Your task to perform on an android device: Search for "razer blade" on walmart, select the first entry, and add it to the cart. Image 0: 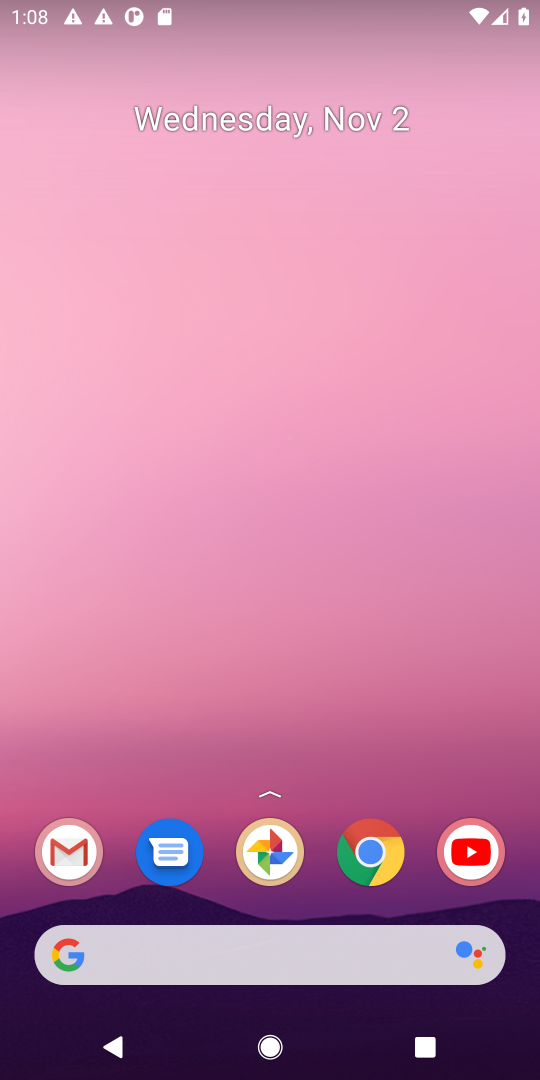
Step 0: click (58, 939)
Your task to perform on an android device: Search for "razer blade" on walmart, select the first entry, and add it to the cart. Image 1: 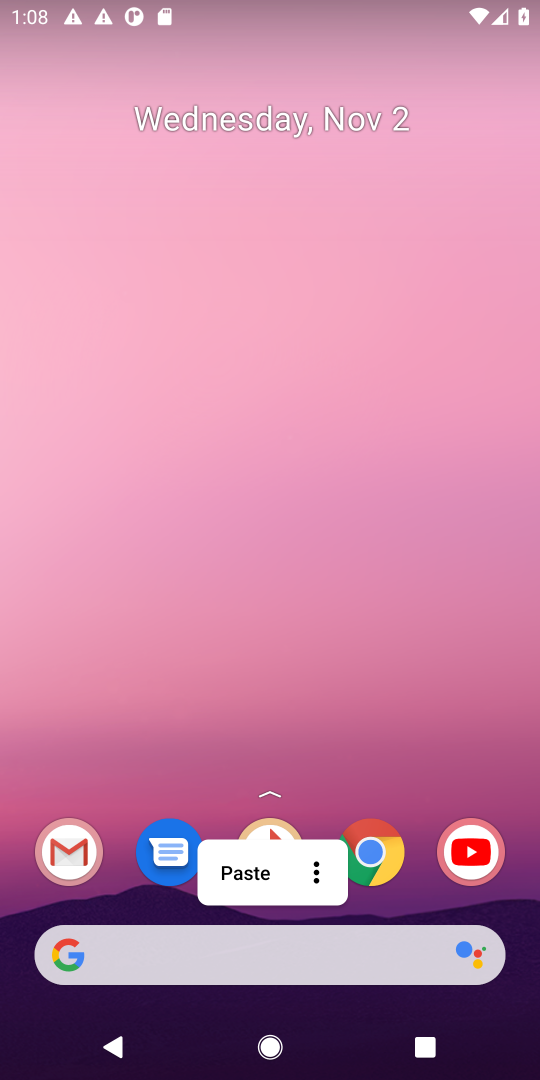
Step 1: click (63, 948)
Your task to perform on an android device: Search for "razer blade" on walmart, select the first entry, and add it to the cart. Image 2: 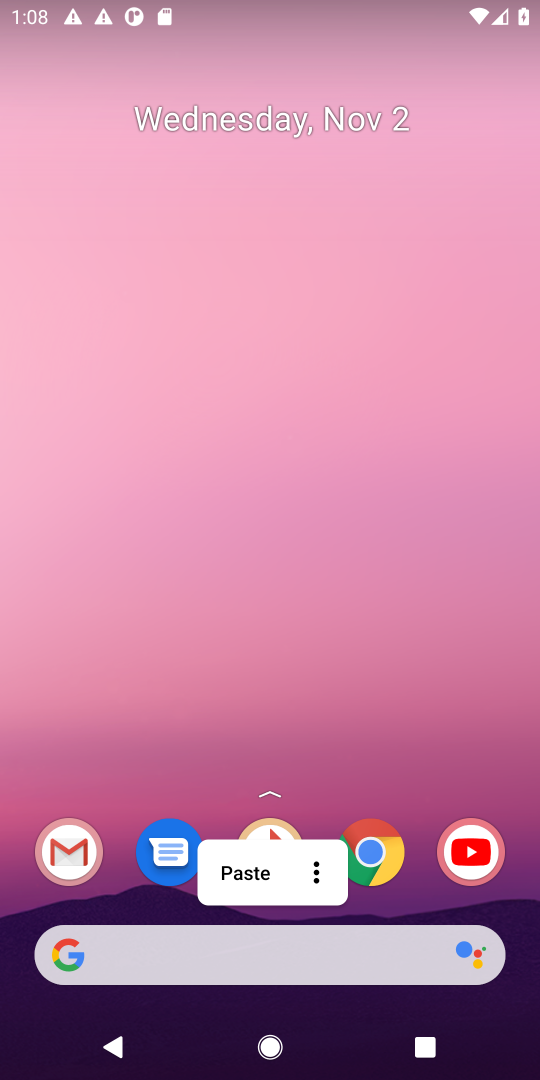
Step 2: click (48, 956)
Your task to perform on an android device: Search for "razer blade" on walmart, select the first entry, and add it to the cart. Image 3: 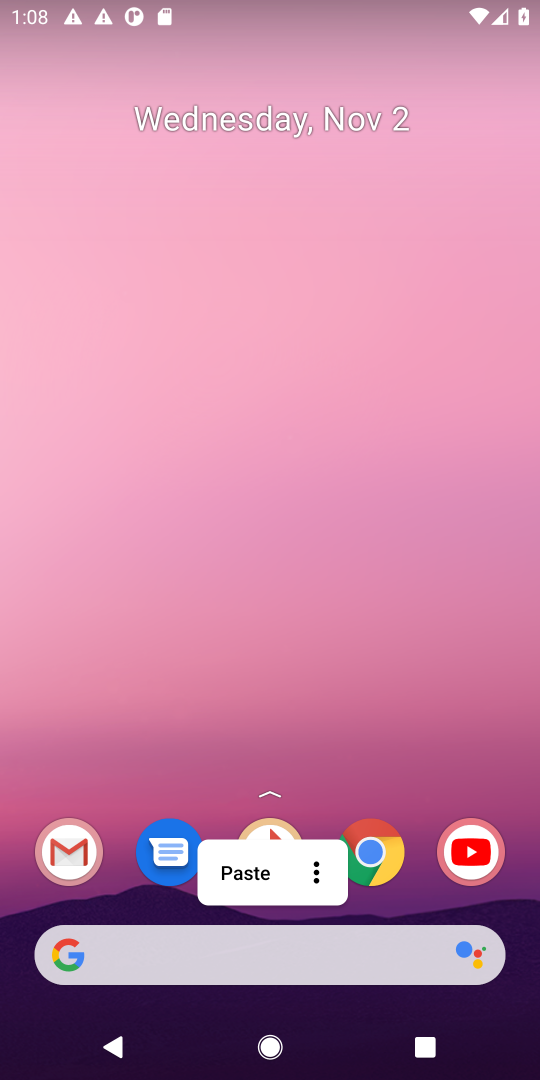
Step 3: click (31, 942)
Your task to perform on an android device: Search for "razer blade" on walmart, select the first entry, and add it to the cart. Image 4: 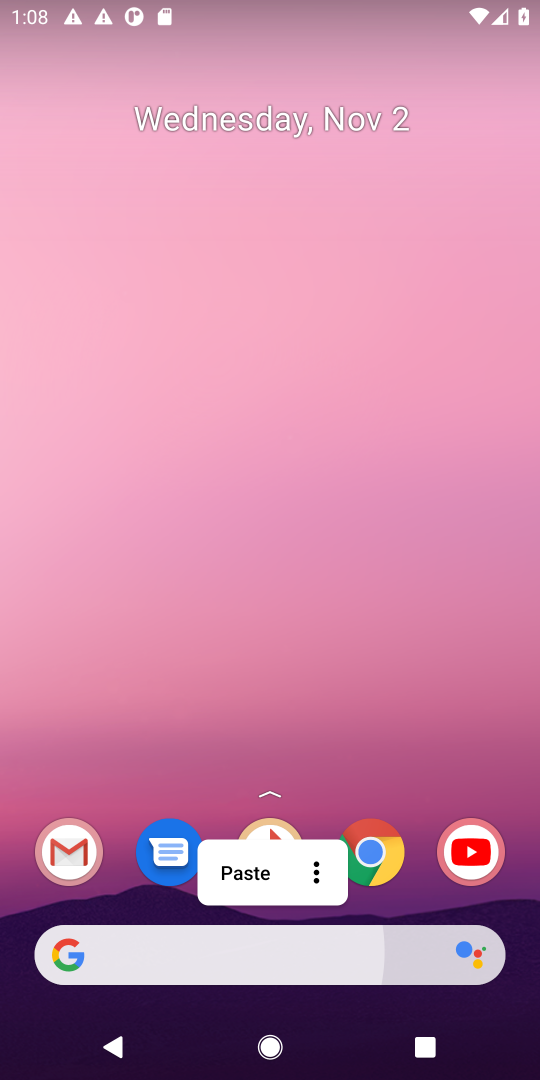
Step 4: click (51, 951)
Your task to perform on an android device: Search for "razer blade" on walmart, select the first entry, and add it to the cart. Image 5: 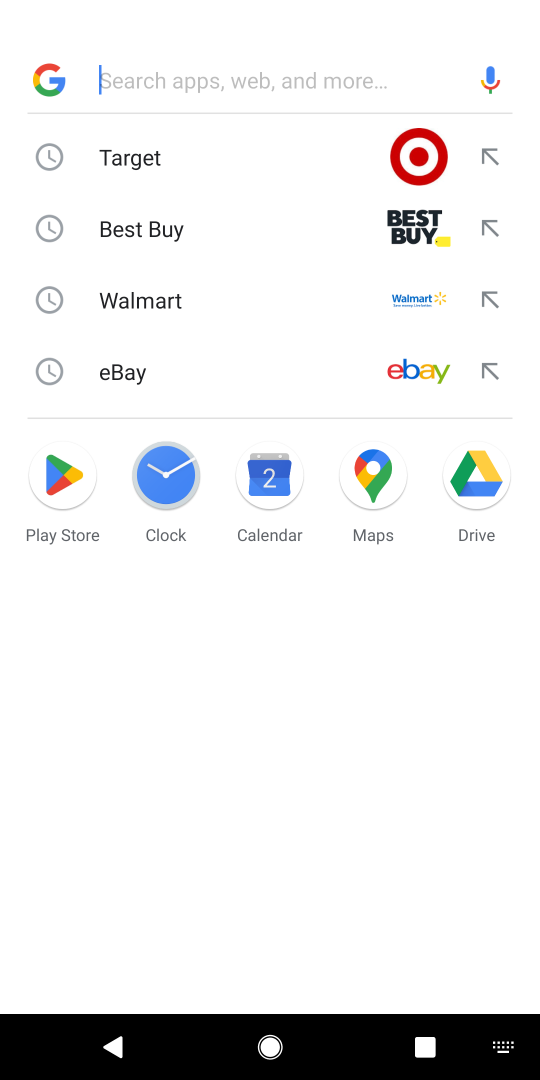
Step 5: click (157, 305)
Your task to perform on an android device: Search for "razer blade" on walmart, select the first entry, and add it to the cart. Image 6: 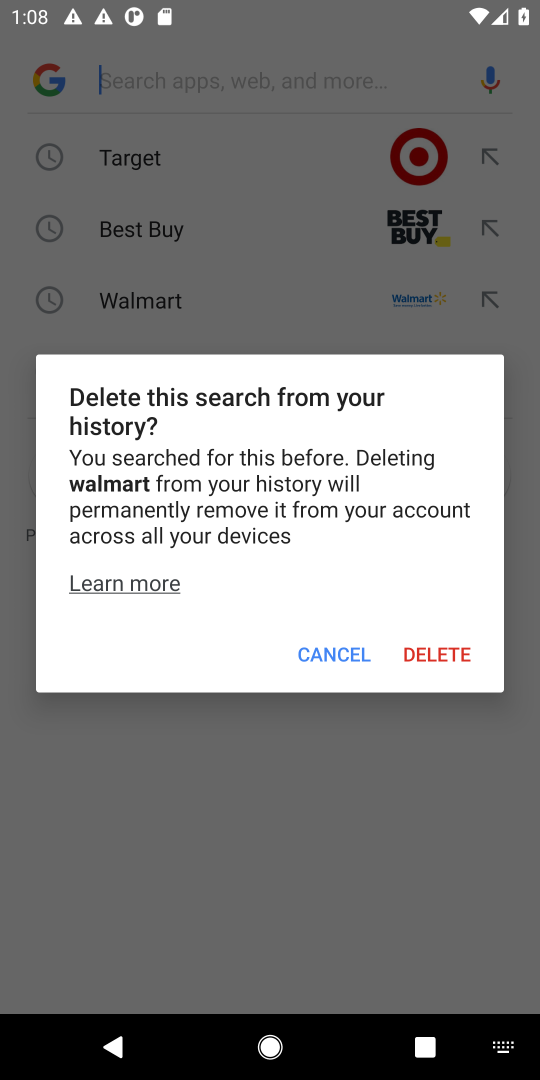
Step 6: click (325, 651)
Your task to perform on an android device: Search for "razer blade" on walmart, select the first entry, and add it to the cart. Image 7: 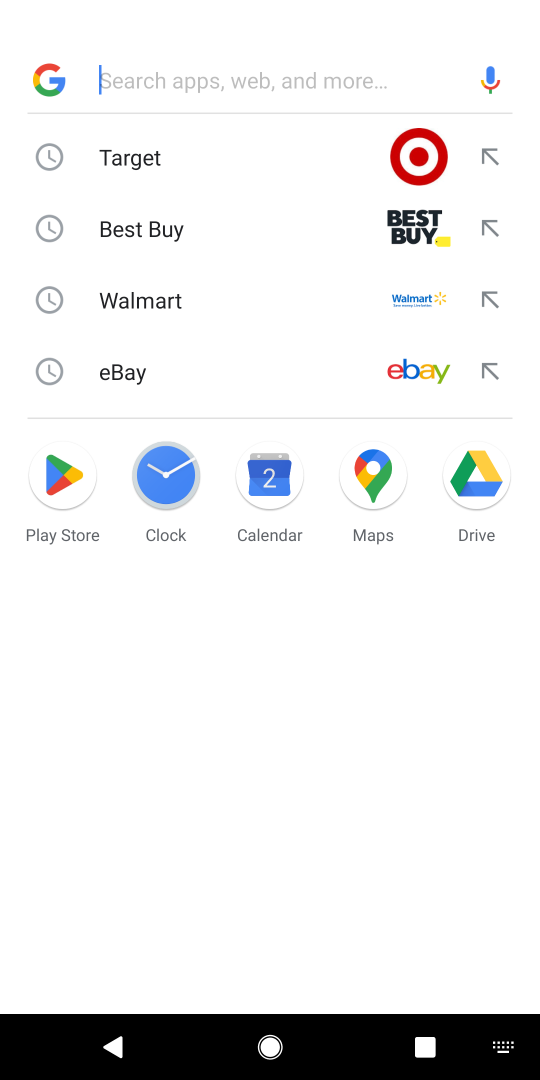
Step 7: click (139, 303)
Your task to perform on an android device: Search for "razer blade" on walmart, select the first entry, and add it to the cart. Image 8: 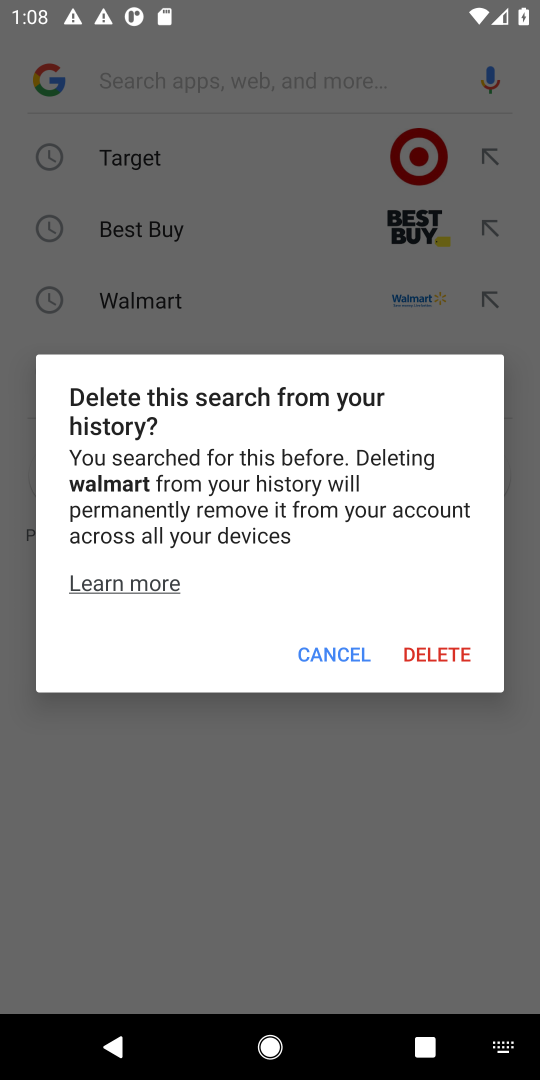
Step 8: click (343, 649)
Your task to perform on an android device: Search for "razer blade" on walmart, select the first entry, and add it to the cart. Image 9: 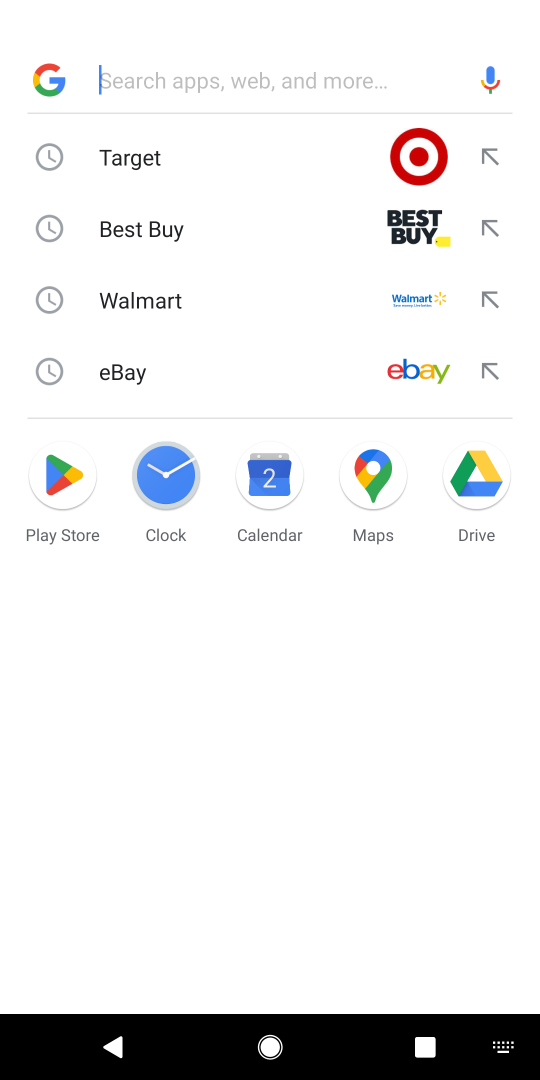
Step 9: click (138, 308)
Your task to perform on an android device: Search for "razer blade" on walmart, select the first entry, and add it to the cart. Image 10: 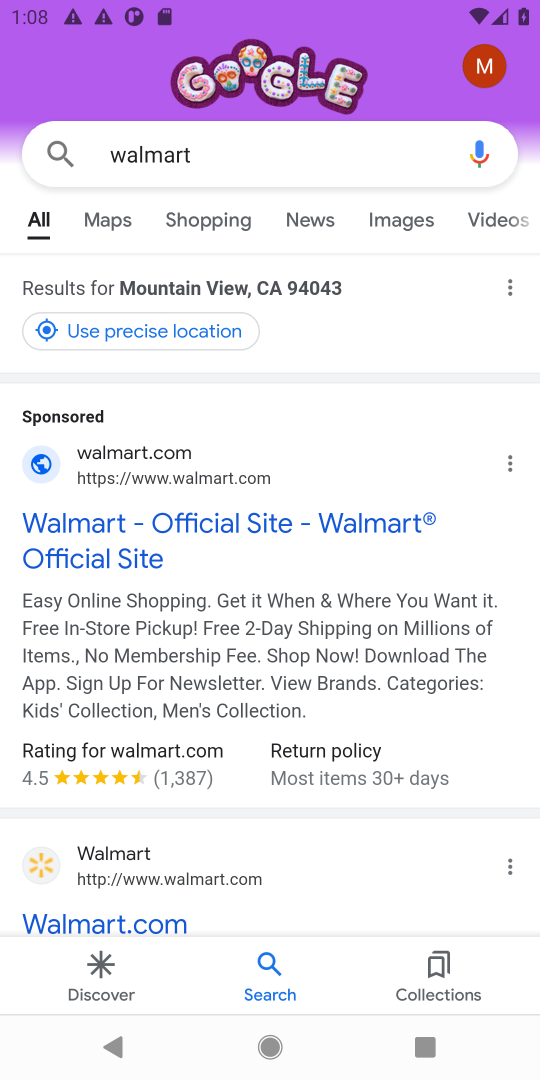
Step 10: click (123, 930)
Your task to perform on an android device: Search for "razer blade" on walmart, select the first entry, and add it to the cart. Image 11: 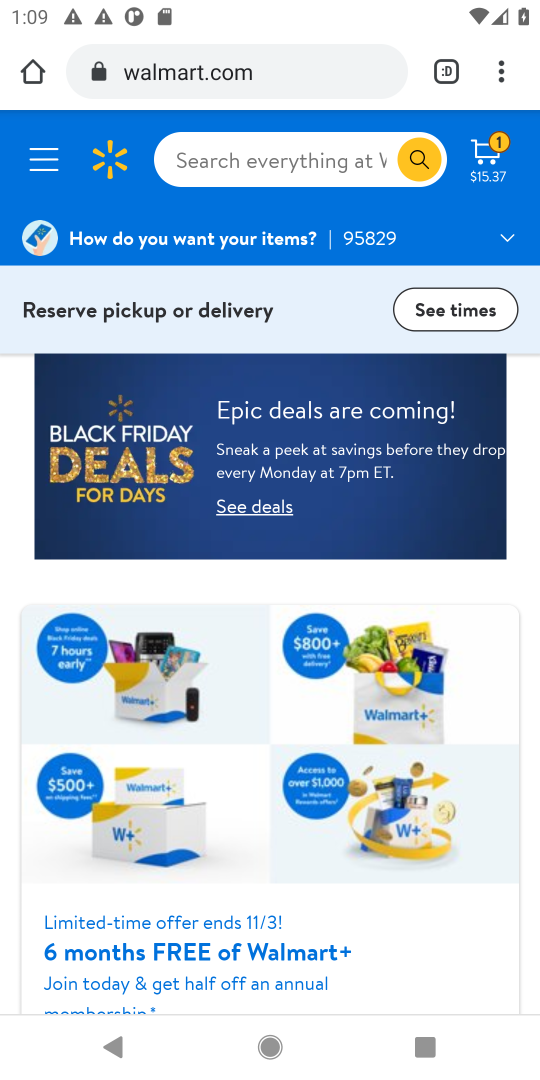
Step 11: click (260, 154)
Your task to perform on an android device: Search for "razer blade" on walmart, select the first entry, and add it to the cart. Image 12: 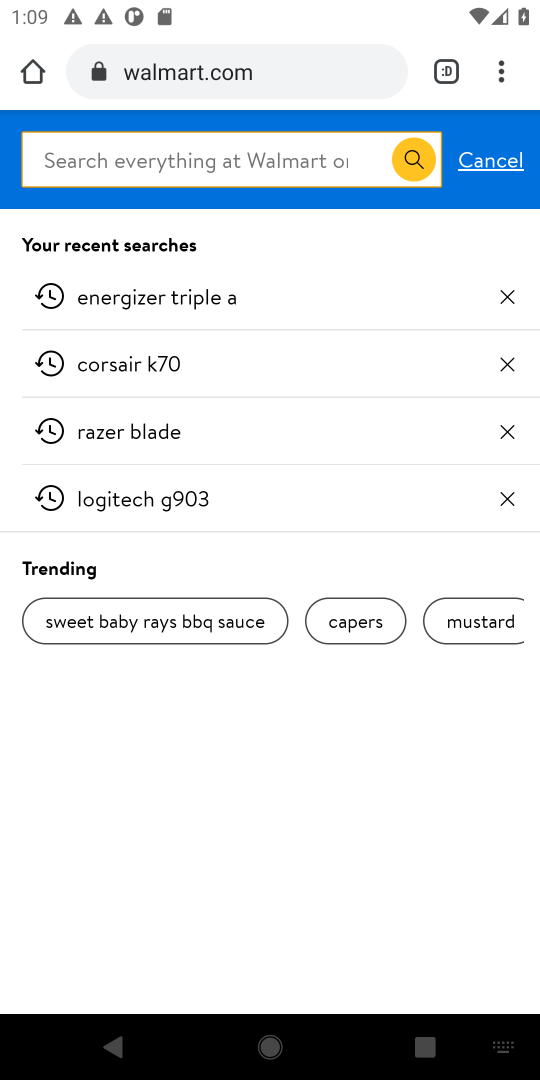
Step 12: type "razer blade"
Your task to perform on an android device: Search for "razer blade" on walmart, select the first entry, and add it to the cart. Image 13: 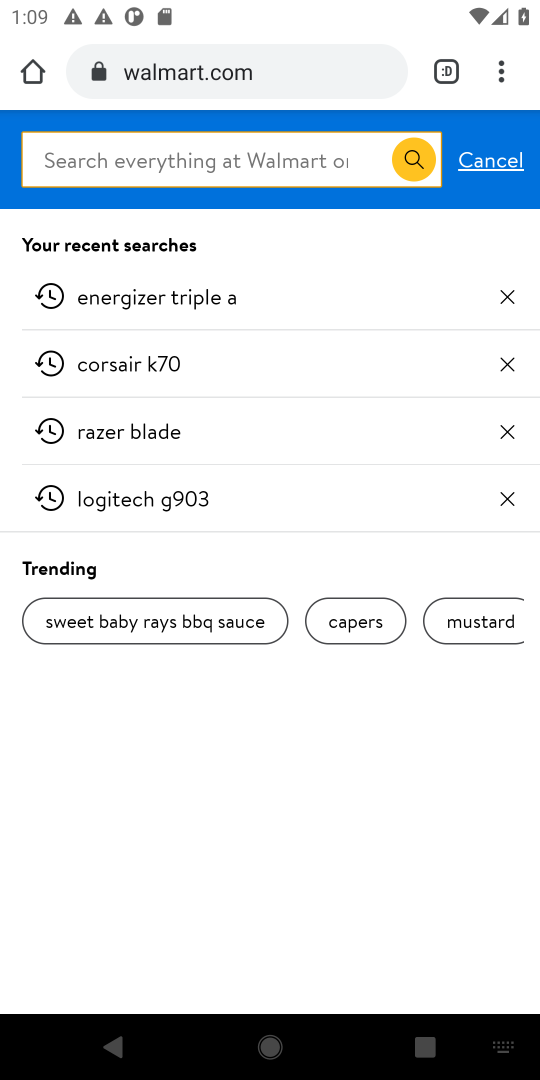
Step 13: click (187, 158)
Your task to perform on an android device: Search for "razer blade" on walmart, select the first entry, and add it to the cart. Image 14: 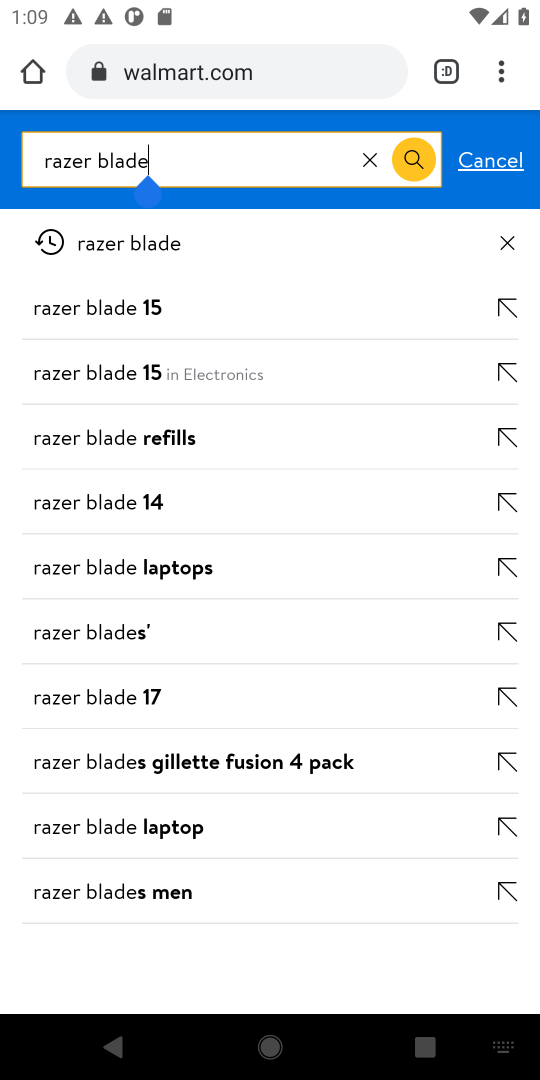
Step 14: press enter
Your task to perform on an android device: Search for "razer blade" on walmart, select the first entry, and add it to the cart. Image 15: 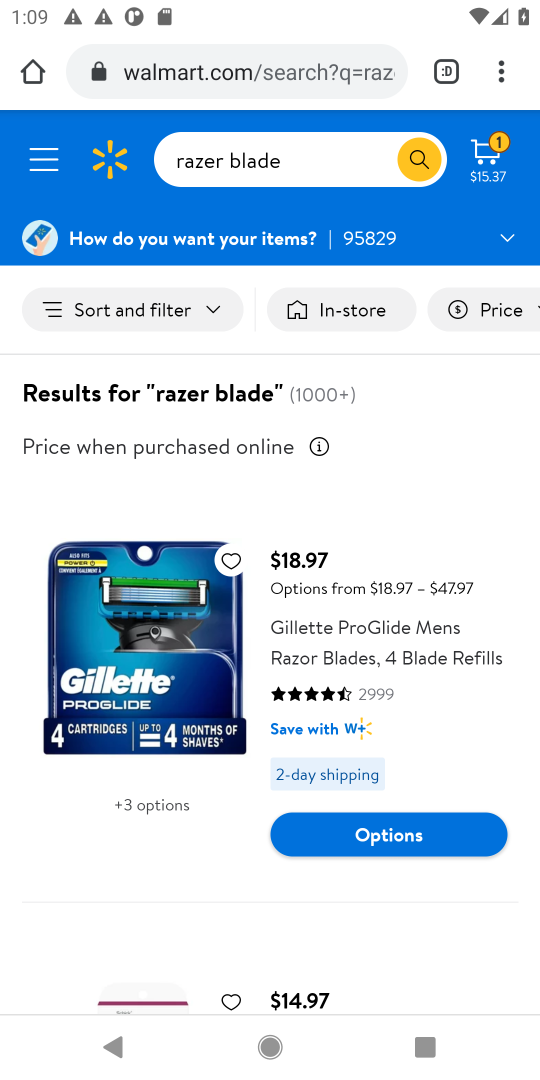
Step 15: click (351, 628)
Your task to perform on an android device: Search for "razer blade" on walmart, select the first entry, and add it to the cart. Image 16: 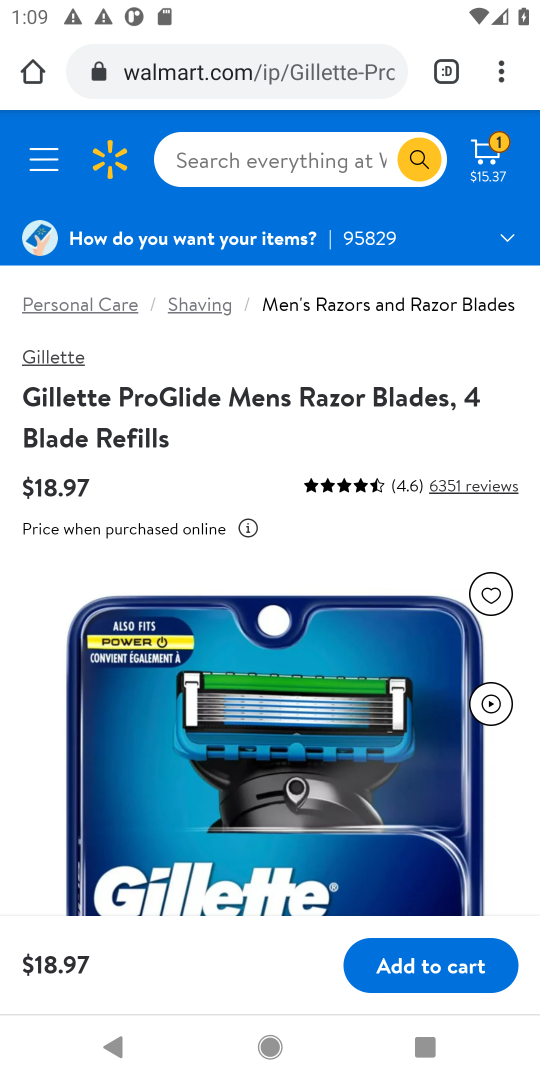
Step 16: click (449, 961)
Your task to perform on an android device: Search for "razer blade" on walmart, select the first entry, and add it to the cart. Image 17: 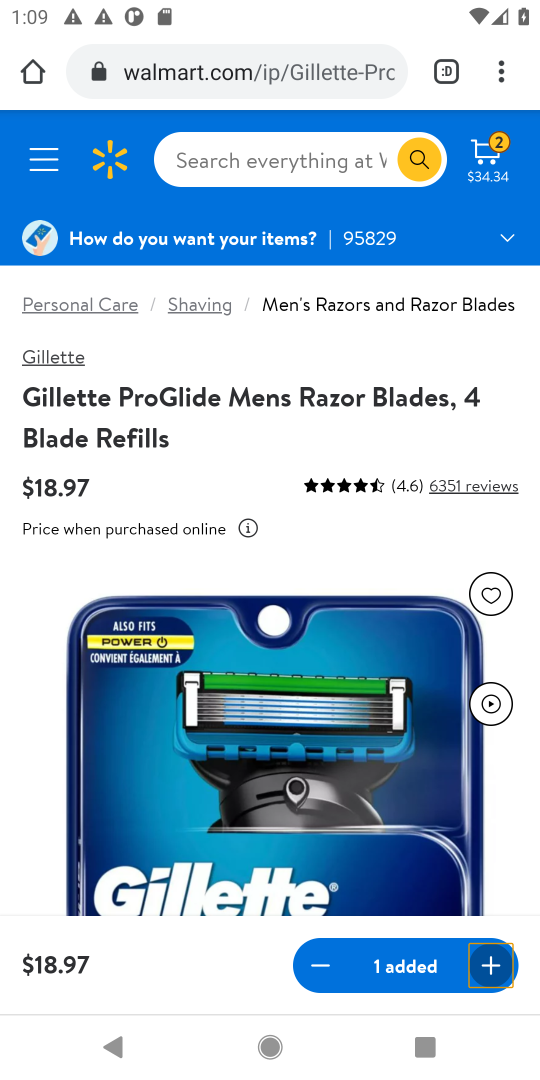
Step 17: click (488, 144)
Your task to perform on an android device: Search for "razer blade" on walmart, select the first entry, and add it to the cart. Image 18: 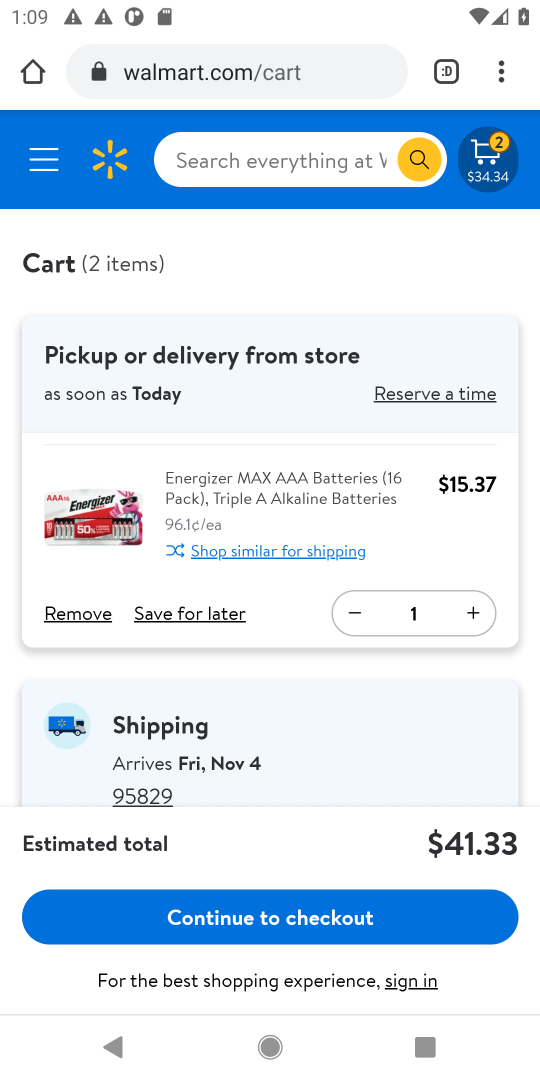
Step 18: task complete